Your task to perform on an android device: remove spam from my inbox in the gmail app Image 0: 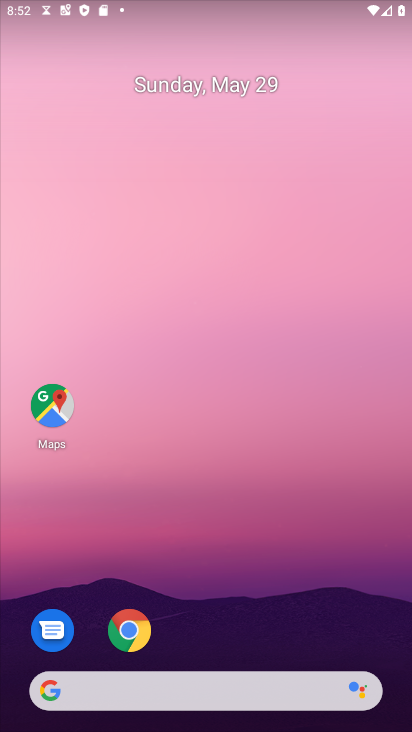
Step 0: drag from (230, 619) to (241, 303)
Your task to perform on an android device: remove spam from my inbox in the gmail app Image 1: 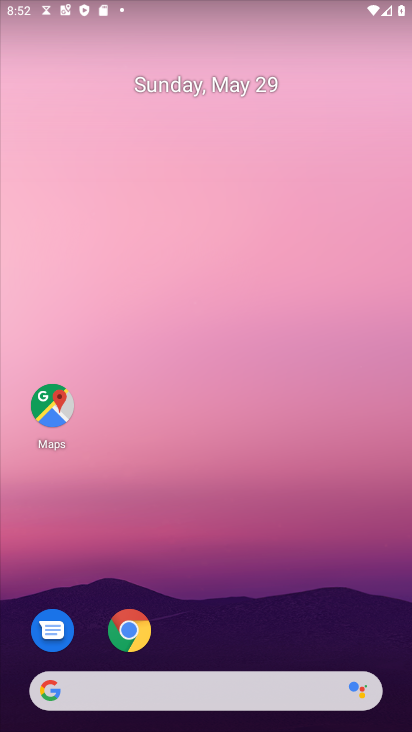
Step 1: drag from (249, 597) to (207, 215)
Your task to perform on an android device: remove spam from my inbox in the gmail app Image 2: 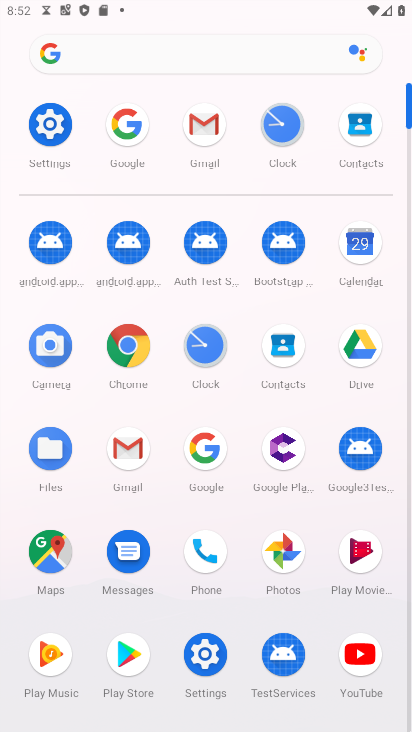
Step 2: click (211, 125)
Your task to perform on an android device: remove spam from my inbox in the gmail app Image 3: 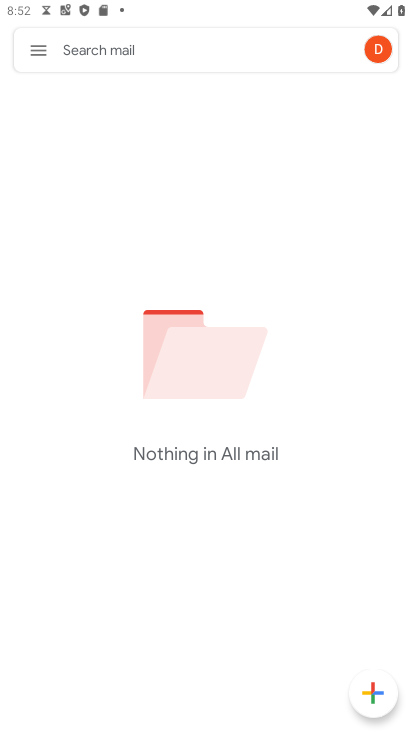
Step 3: click (41, 54)
Your task to perform on an android device: remove spam from my inbox in the gmail app Image 4: 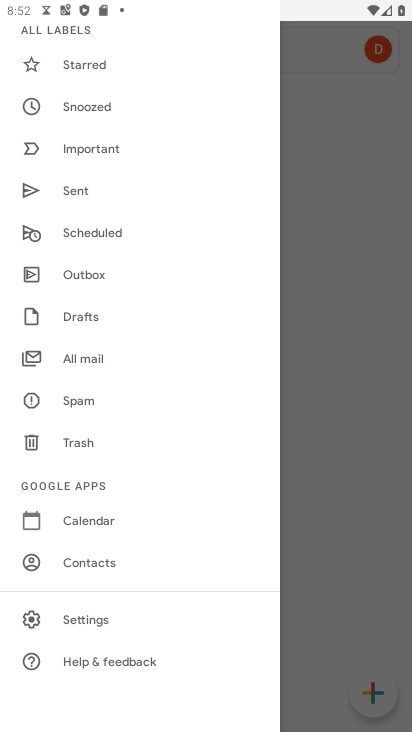
Step 4: click (86, 401)
Your task to perform on an android device: remove spam from my inbox in the gmail app Image 5: 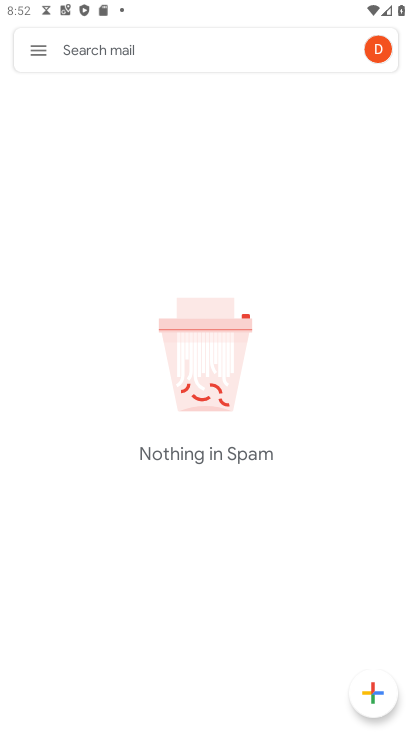
Step 5: task complete